Your task to perform on an android device: turn on the 24-hour format for clock Image 0: 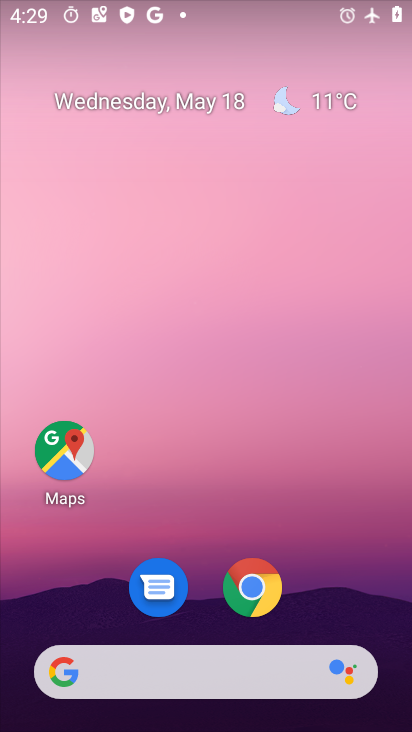
Step 0: drag from (264, 631) to (251, 242)
Your task to perform on an android device: turn on the 24-hour format for clock Image 1: 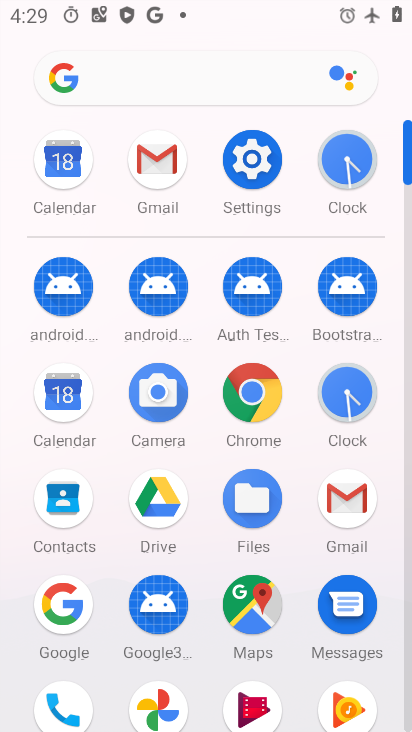
Step 1: click (356, 419)
Your task to perform on an android device: turn on the 24-hour format for clock Image 2: 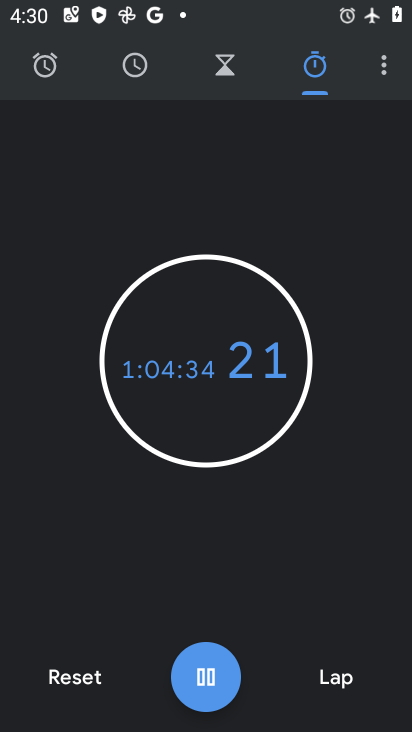
Step 2: click (386, 80)
Your task to perform on an android device: turn on the 24-hour format for clock Image 3: 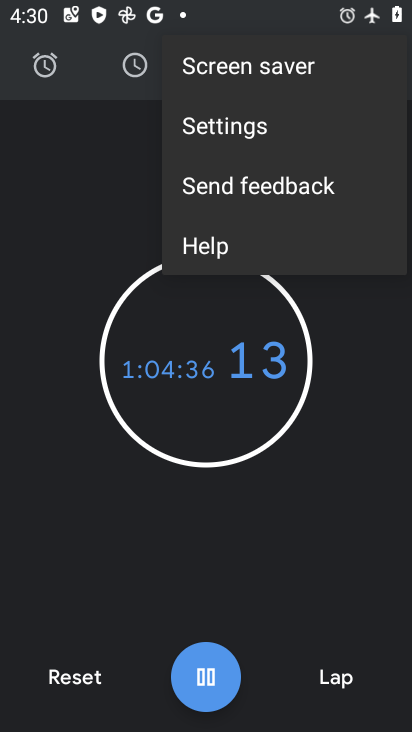
Step 3: click (259, 140)
Your task to perform on an android device: turn on the 24-hour format for clock Image 4: 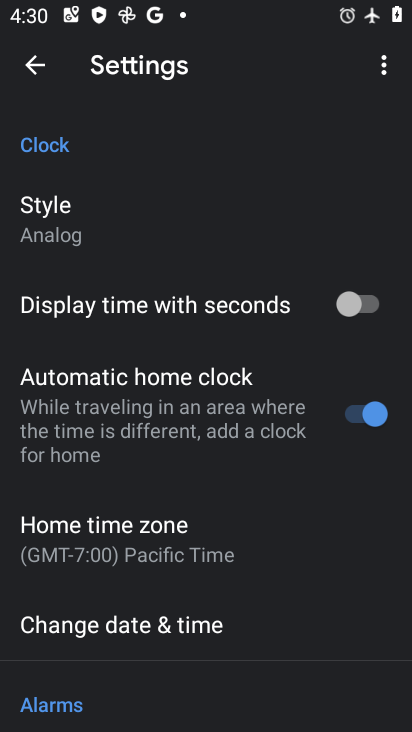
Step 4: drag from (143, 589) to (136, 327)
Your task to perform on an android device: turn on the 24-hour format for clock Image 5: 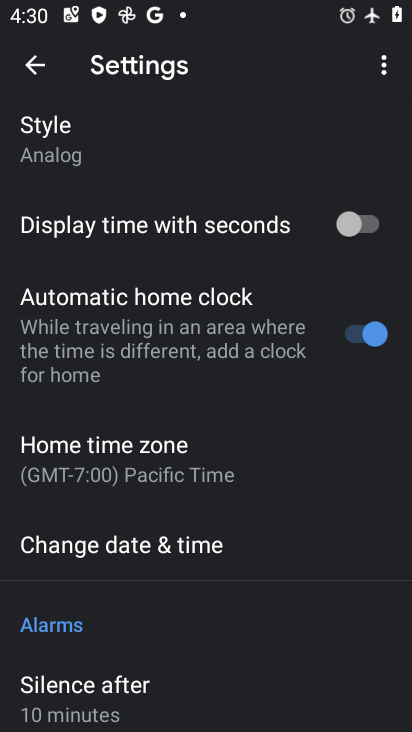
Step 5: click (149, 543)
Your task to perform on an android device: turn on the 24-hour format for clock Image 6: 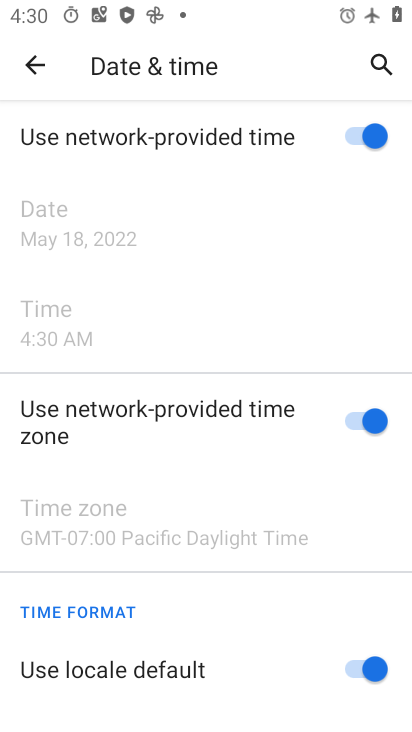
Step 6: task complete